Your task to perform on an android device: Show me popular games on the Play Store Image 0: 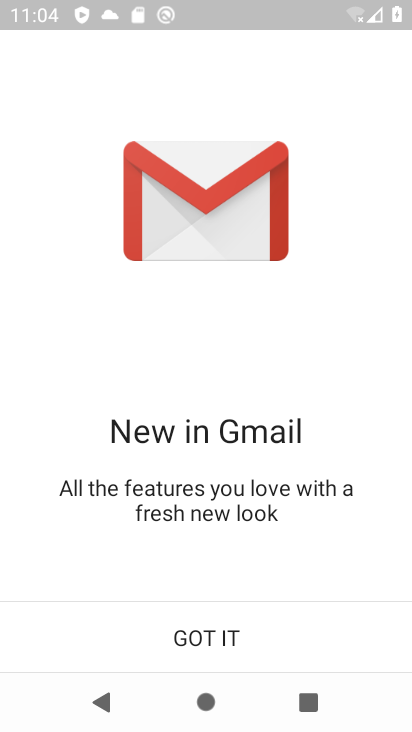
Step 0: press home button
Your task to perform on an android device: Show me popular games on the Play Store Image 1: 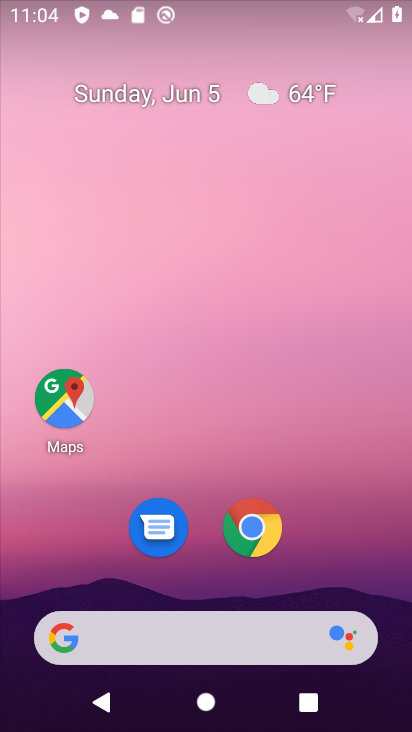
Step 1: drag from (356, 520) to (349, 228)
Your task to perform on an android device: Show me popular games on the Play Store Image 2: 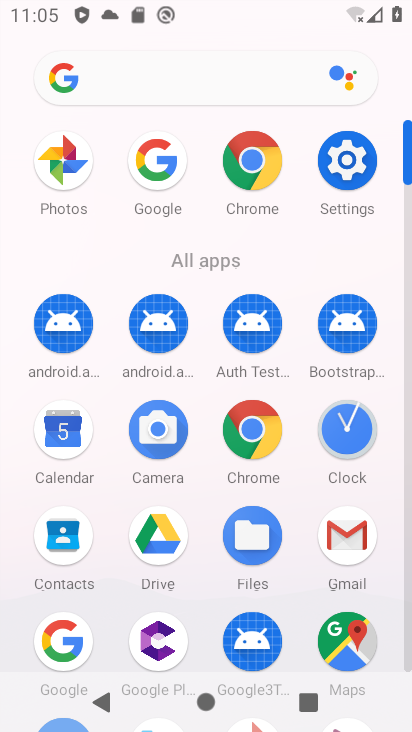
Step 2: click (410, 360)
Your task to perform on an android device: Show me popular games on the Play Store Image 3: 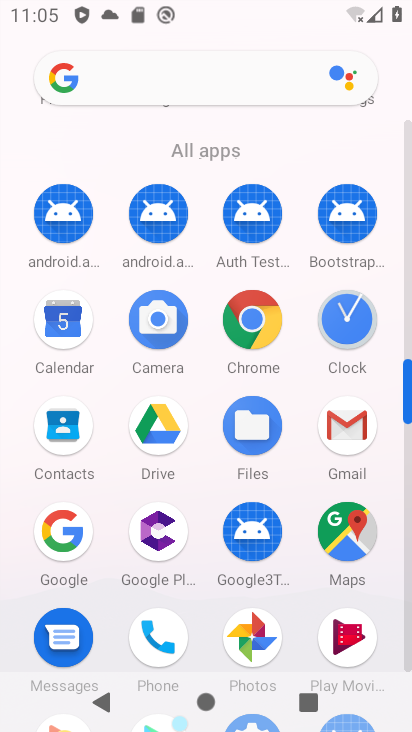
Step 3: click (404, 469)
Your task to perform on an android device: Show me popular games on the Play Store Image 4: 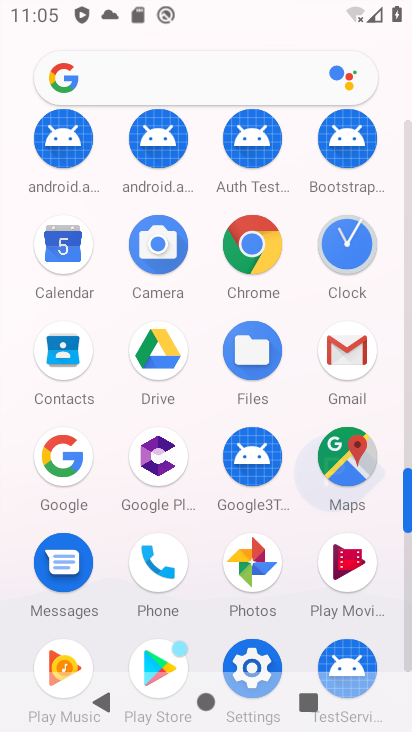
Step 4: click (404, 469)
Your task to perform on an android device: Show me popular games on the Play Store Image 5: 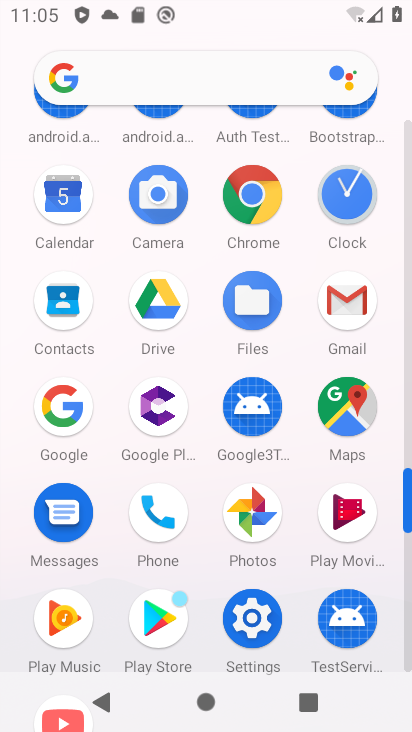
Step 5: click (160, 623)
Your task to perform on an android device: Show me popular games on the Play Store Image 6: 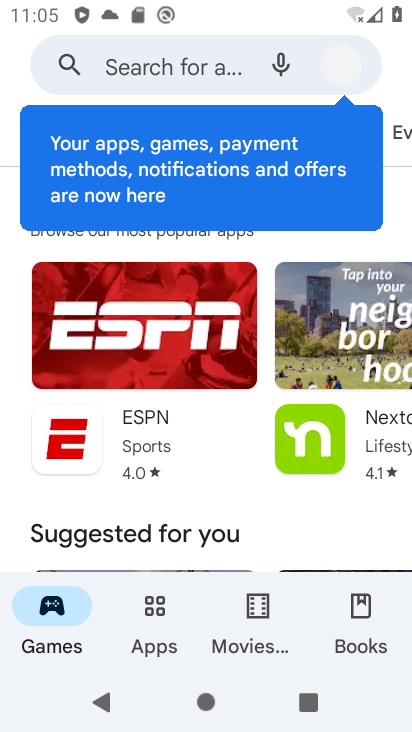
Step 6: click (131, 60)
Your task to perform on an android device: Show me popular games on the Play Store Image 7: 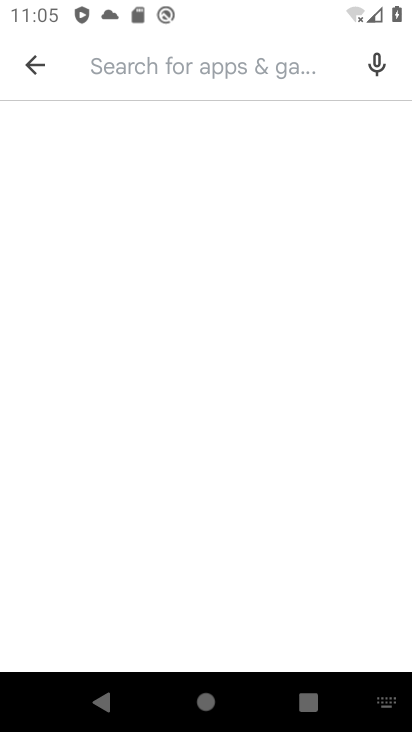
Step 7: type "Pooular games"
Your task to perform on an android device: Show me popular games on the Play Store Image 8: 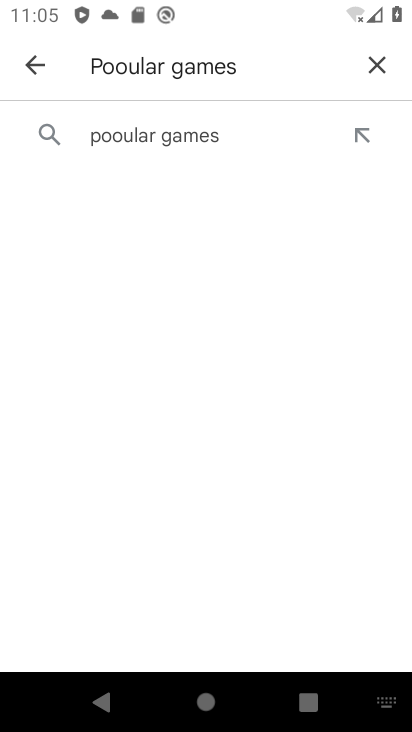
Step 8: click (281, 146)
Your task to perform on an android device: Show me popular games on the Play Store Image 9: 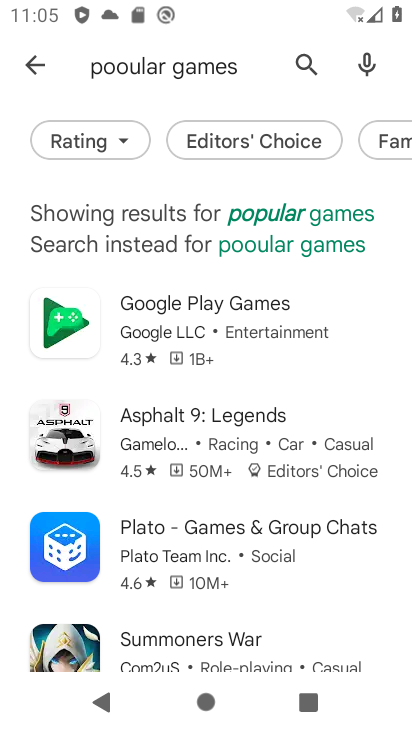
Step 9: click (270, 217)
Your task to perform on an android device: Show me popular games on the Play Store Image 10: 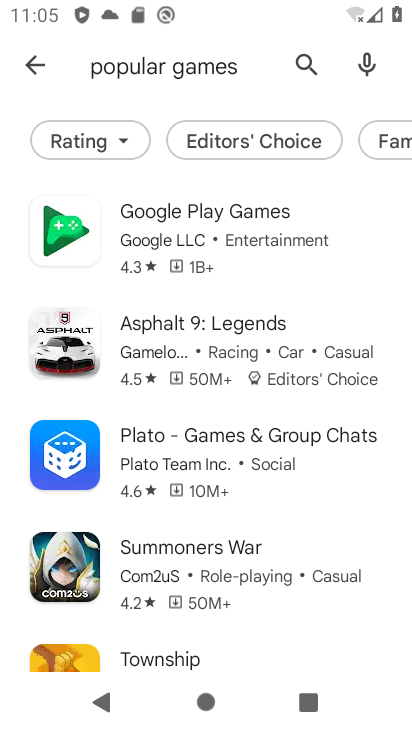
Step 10: task complete